Your task to perform on an android device: Open ESPN.com Image 0: 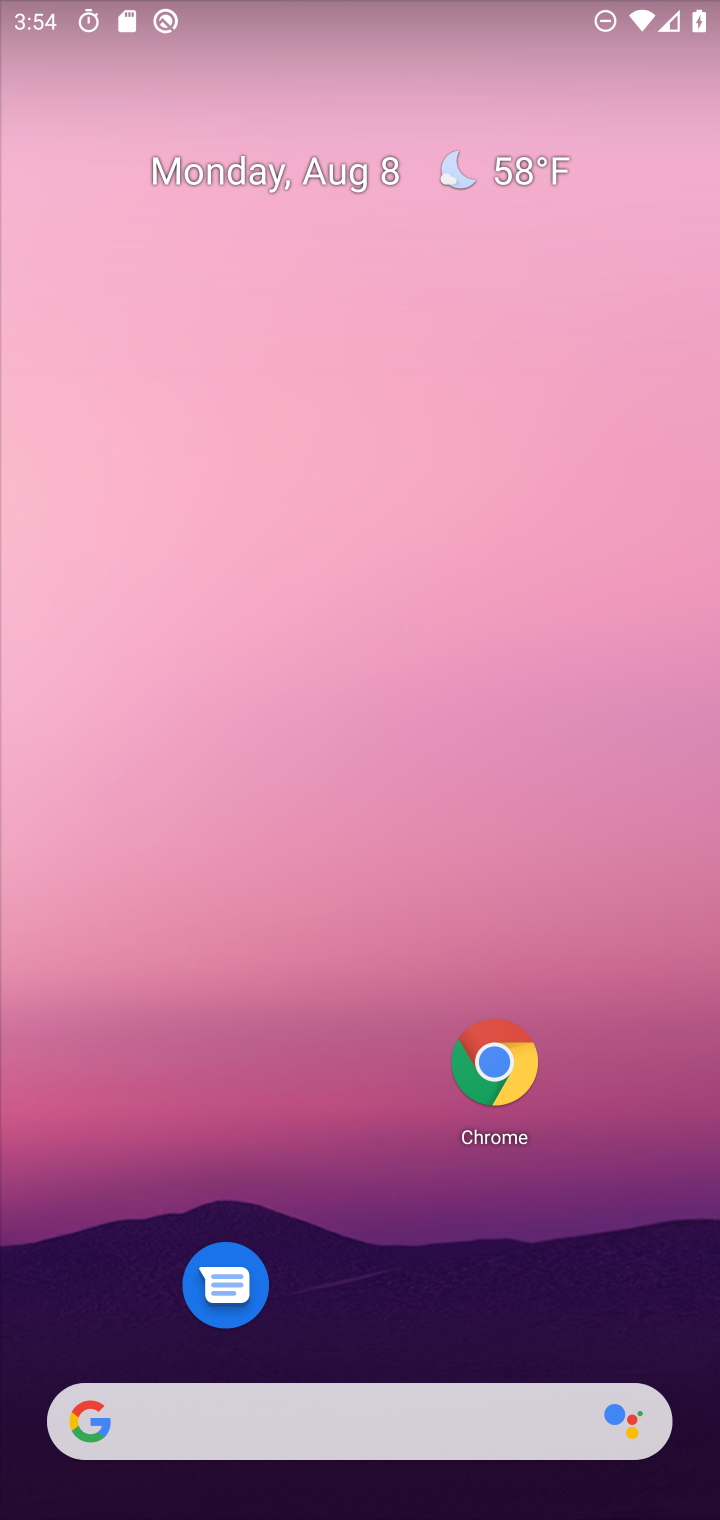
Step 0: click (471, 1068)
Your task to perform on an android device: Open ESPN.com Image 1: 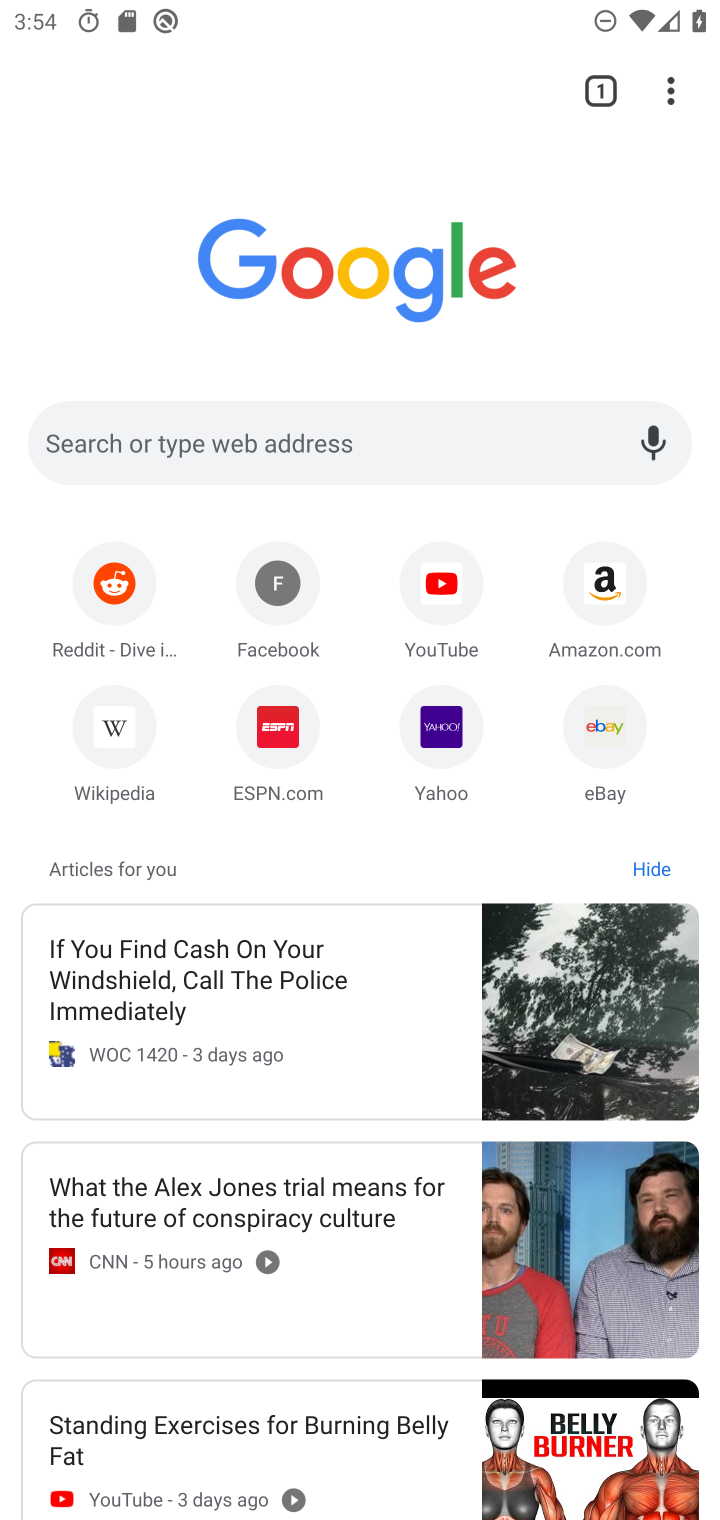
Step 1: click (281, 738)
Your task to perform on an android device: Open ESPN.com Image 2: 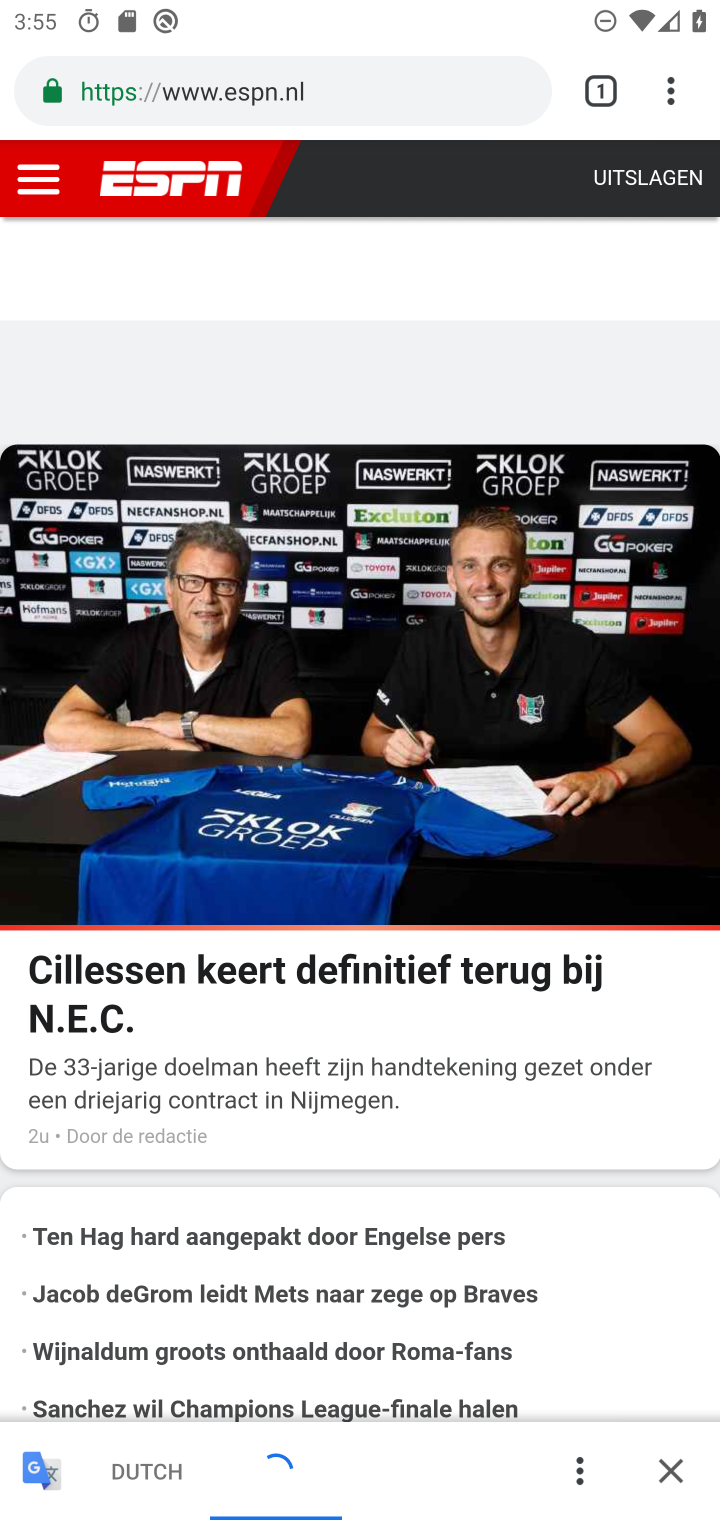
Step 2: task complete